Your task to perform on an android device: empty trash in the gmail app Image 0: 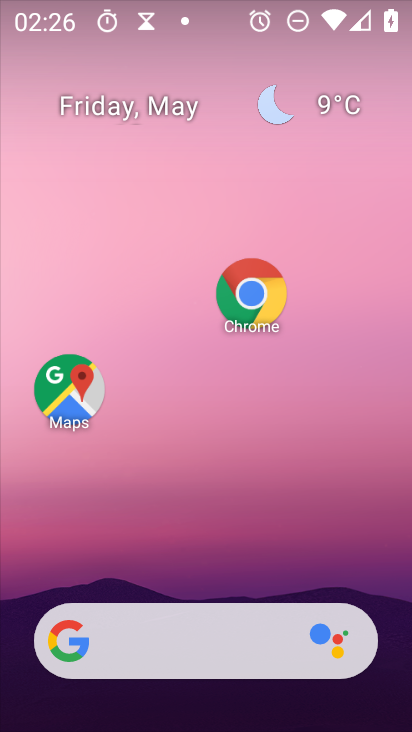
Step 0: drag from (144, 648) to (271, 309)
Your task to perform on an android device: empty trash in the gmail app Image 1: 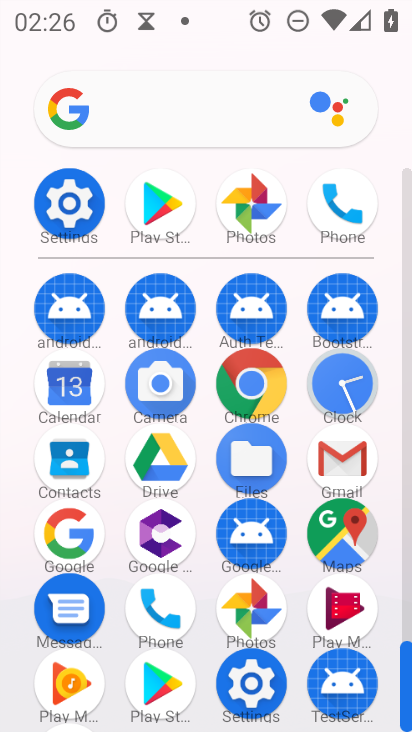
Step 1: click (326, 472)
Your task to perform on an android device: empty trash in the gmail app Image 2: 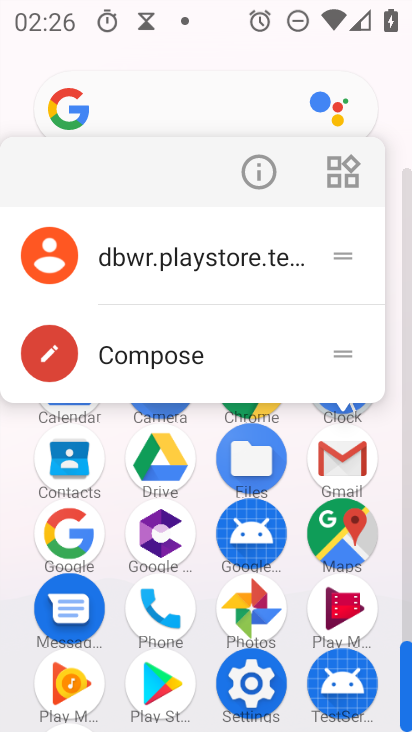
Step 2: click (340, 478)
Your task to perform on an android device: empty trash in the gmail app Image 3: 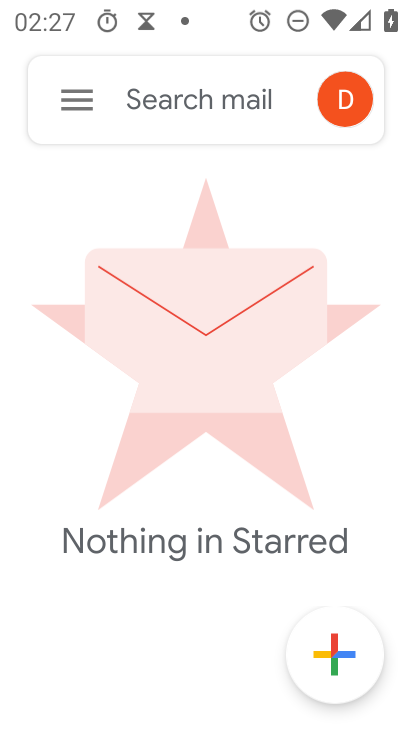
Step 3: click (73, 96)
Your task to perform on an android device: empty trash in the gmail app Image 4: 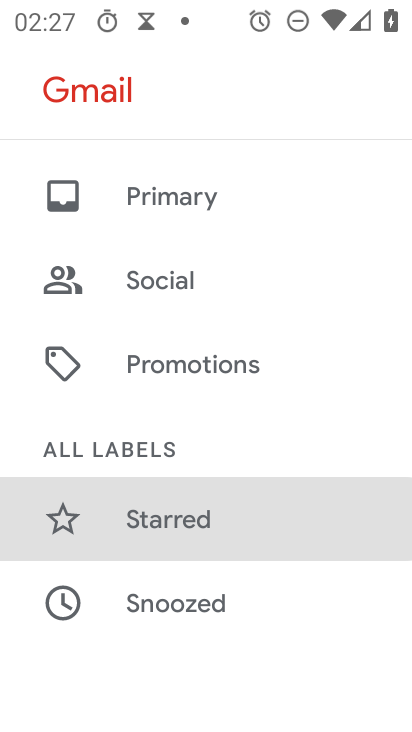
Step 4: drag from (304, 652) to (287, 226)
Your task to perform on an android device: empty trash in the gmail app Image 5: 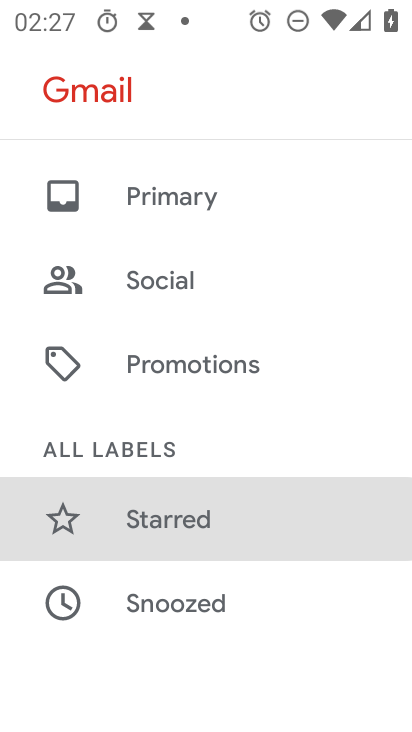
Step 5: drag from (200, 575) to (352, 109)
Your task to perform on an android device: empty trash in the gmail app Image 6: 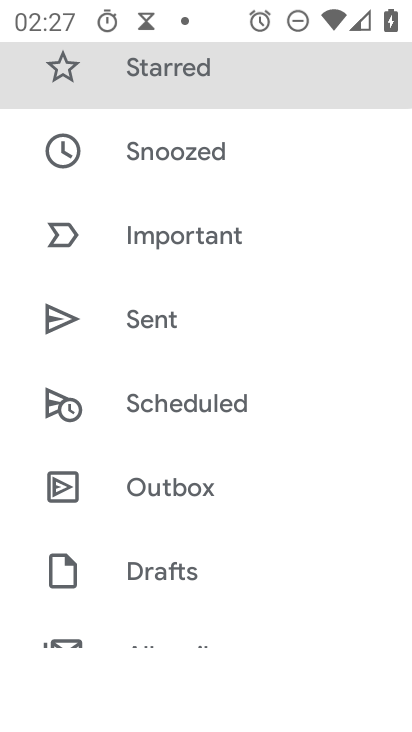
Step 6: drag from (253, 486) to (370, 147)
Your task to perform on an android device: empty trash in the gmail app Image 7: 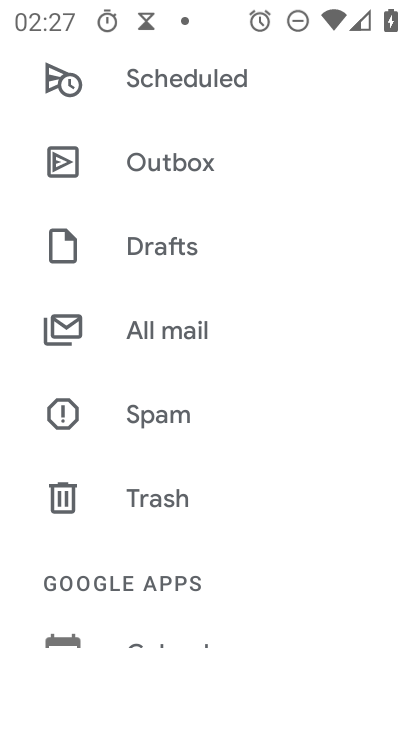
Step 7: click (159, 499)
Your task to perform on an android device: empty trash in the gmail app Image 8: 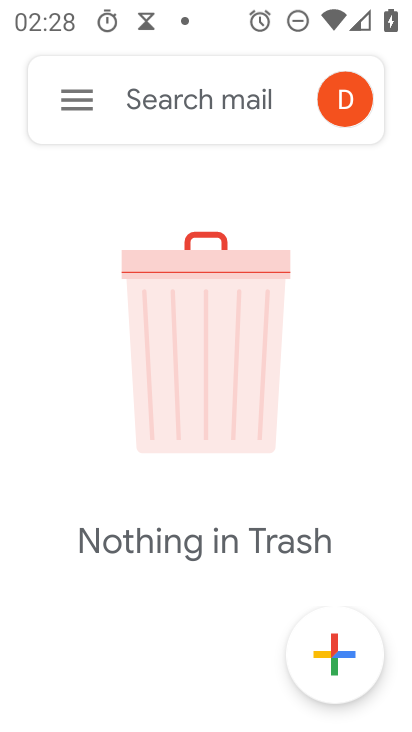
Step 8: task complete